Your task to perform on an android device: clear history in the chrome app Image 0: 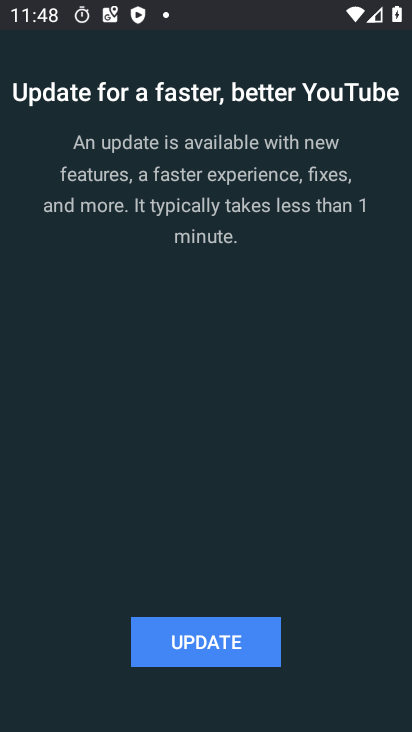
Step 0: press home button
Your task to perform on an android device: clear history in the chrome app Image 1: 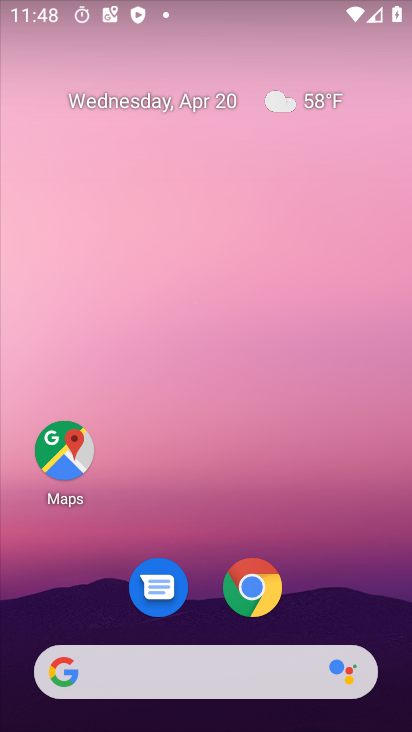
Step 1: click (256, 578)
Your task to perform on an android device: clear history in the chrome app Image 2: 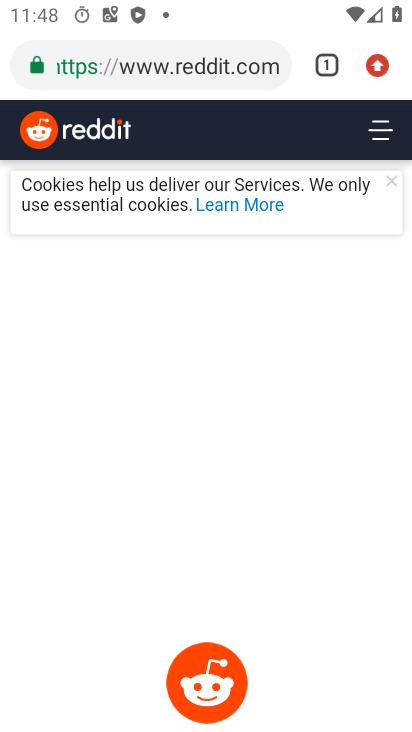
Step 2: click (379, 62)
Your task to perform on an android device: clear history in the chrome app Image 3: 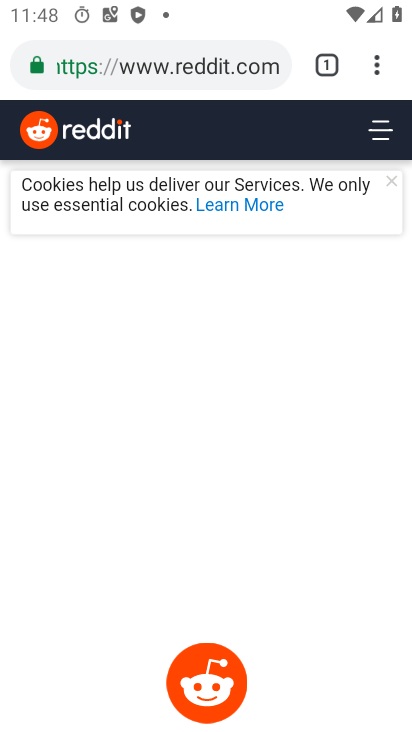
Step 3: click (381, 80)
Your task to perform on an android device: clear history in the chrome app Image 4: 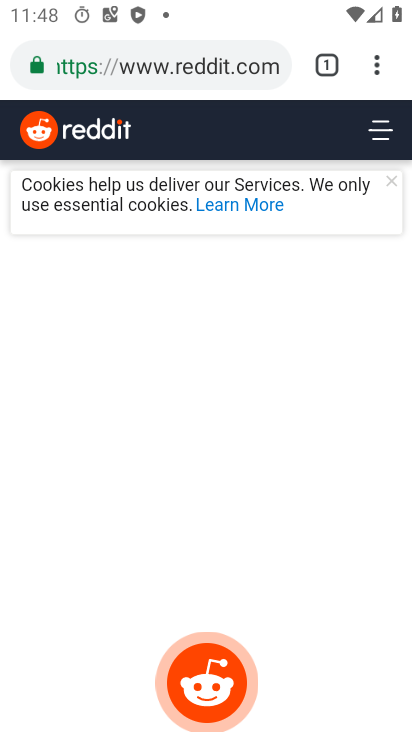
Step 4: click (383, 76)
Your task to perform on an android device: clear history in the chrome app Image 5: 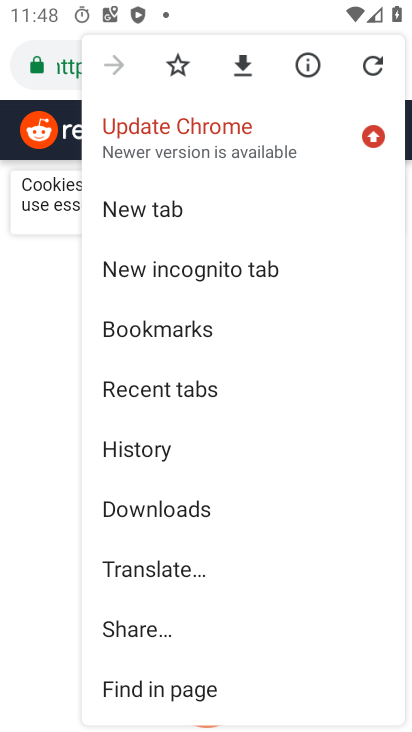
Step 5: click (146, 450)
Your task to perform on an android device: clear history in the chrome app Image 6: 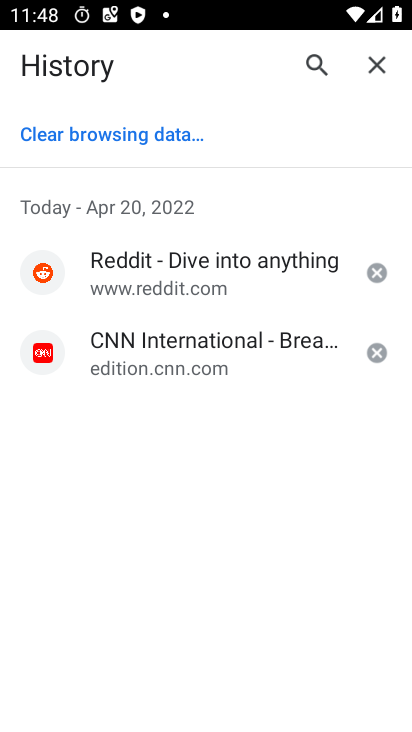
Step 6: click (152, 135)
Your task to perform on an android device: clear history in the chrome app Image 7: 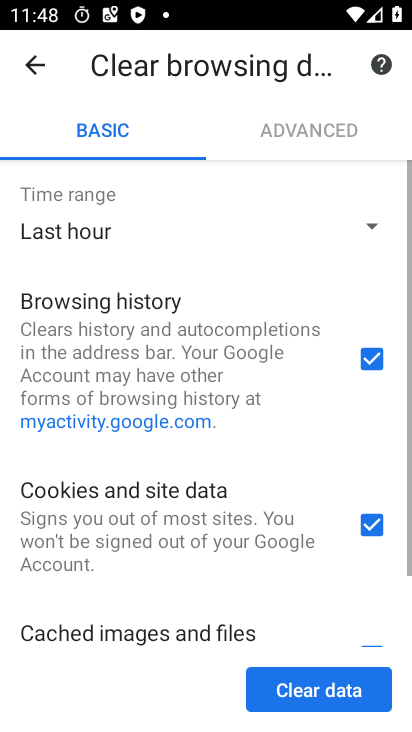
Step 7: drag from (284, 507) to (290, 270)
Your task to perform on an android device: clear history in the chrome app Image 8: 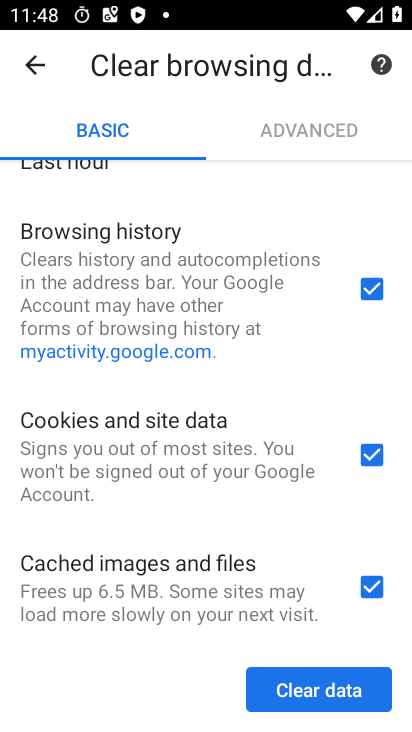
Step 8: click (365, 457)
Your task to perform on an android device: clear history in the chrome app Image 9: 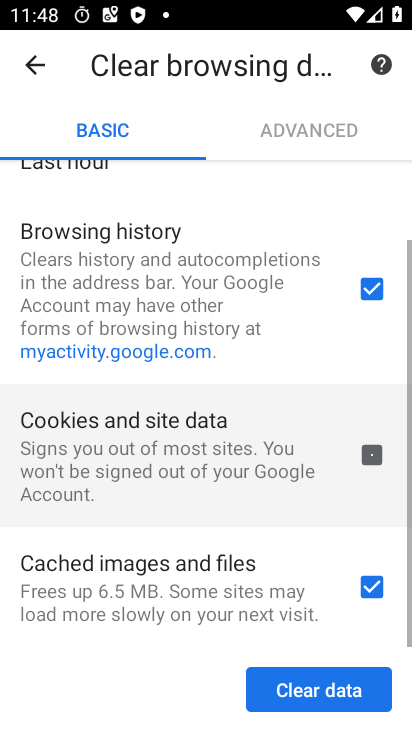
Step 9: click (368, 589)
Your task to perform on an android device: clear history in the chrome app Image 10: 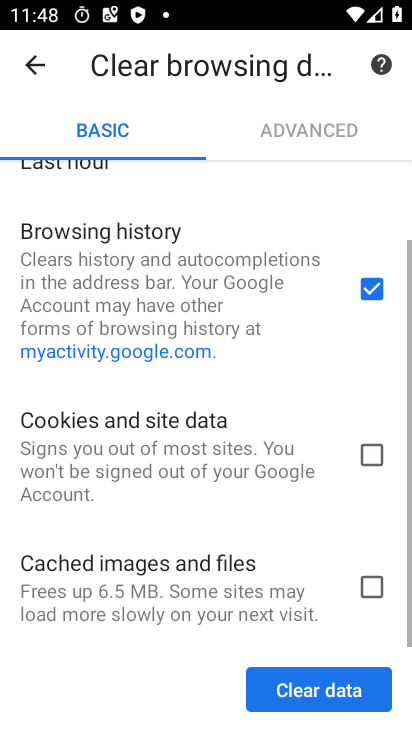
Step 10: click (324, 695)
Your task to perform on an android device: clear history in the chrome app Image 11: 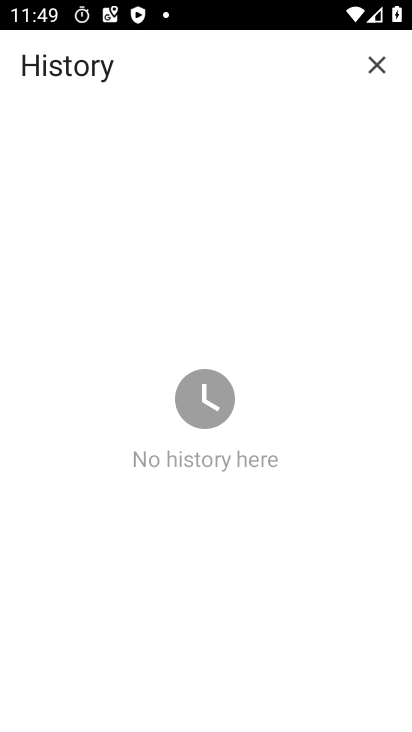
Step 11: task complete